Your task to perform on an android device: allow notifications from all sites in the chrome app Image 0: 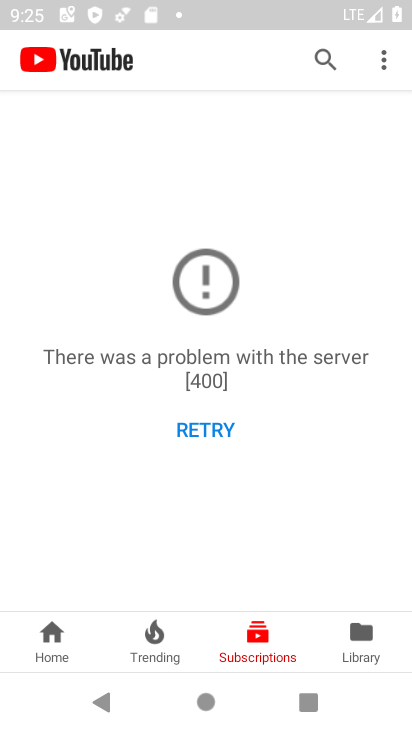
Step 0: press home button
Your task to perform on an android device: allow notifications from all sites in the chrome app Image 1: 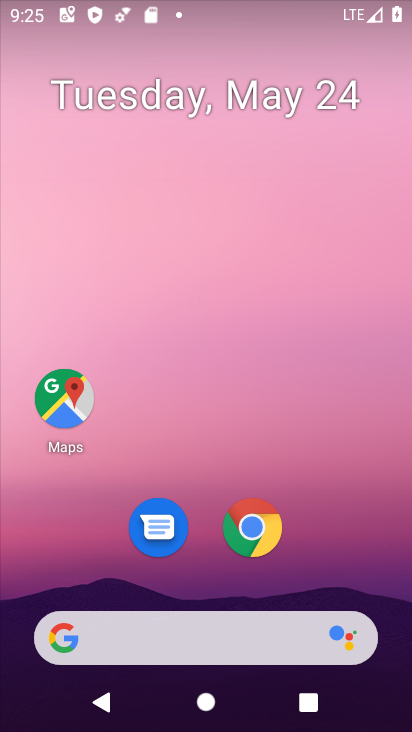
Step 1: click (290, 525)
Your task to perform on an android device: allow notifications from all sites in the chrome app Image 2: 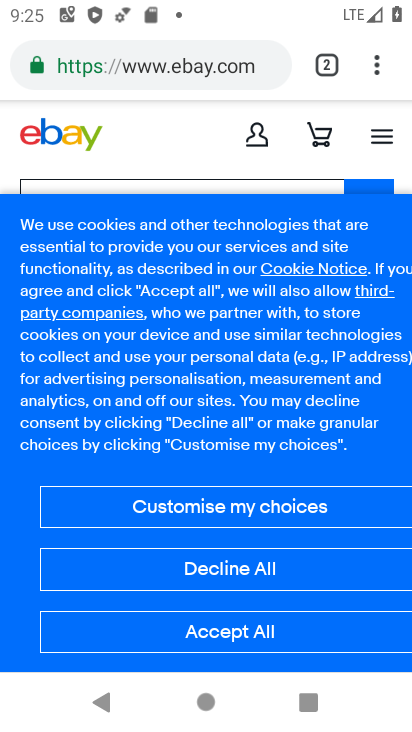
Step 2: click (382, 69)
Your task to perform on an android device: allow notifications from all sites in the chrome app Image 3: 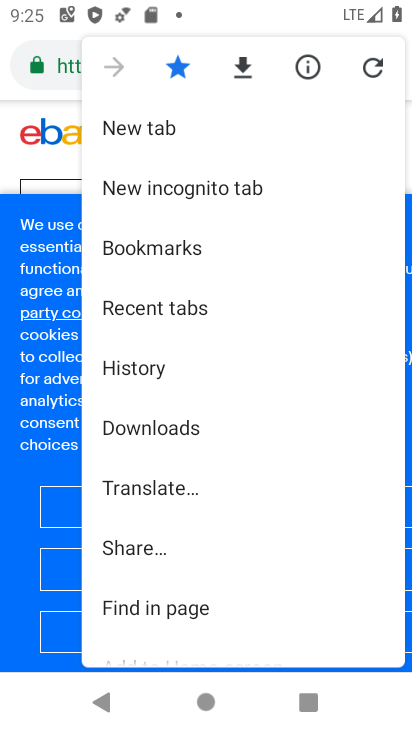
Step 3: drag from (197, 591) to (209, 175)
Your task to perform on an android device: allow notifications from all sites in the chrome app Image 4: 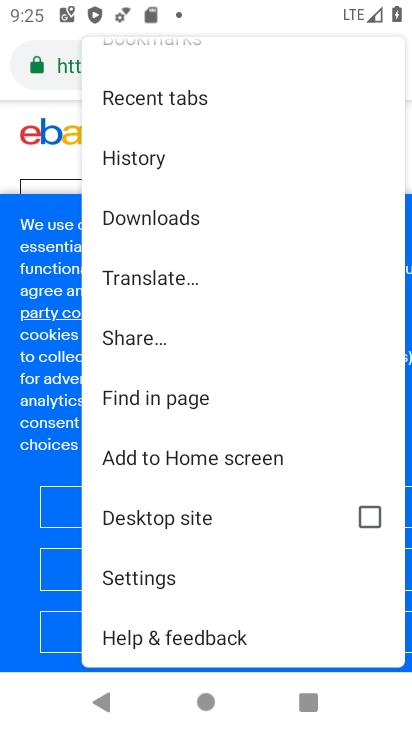
Step 4: click (169, 585)
Your task to perform on an android device: allow notifications from all sites in the chrome app Image 5: 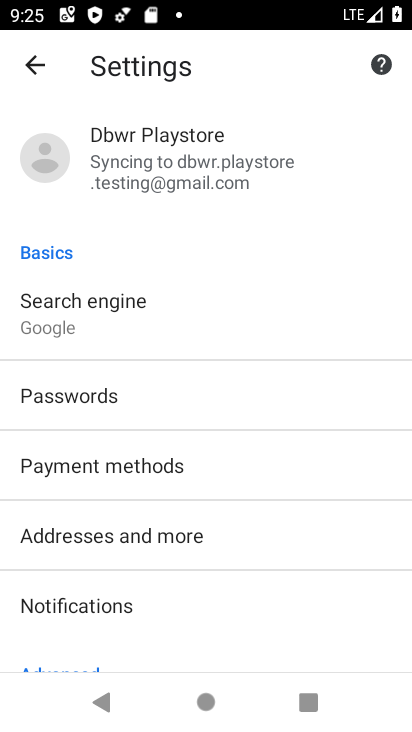
Step 5: click (100, 608)
Your task to perform on an android device: allow notifications from all sites in the chrome app Image 6: 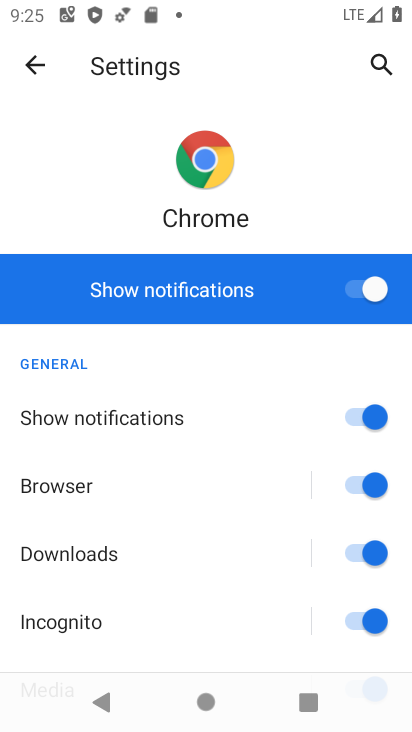
Step 6: task complete